Your task to perform on an android device: show emergency info Image 0: 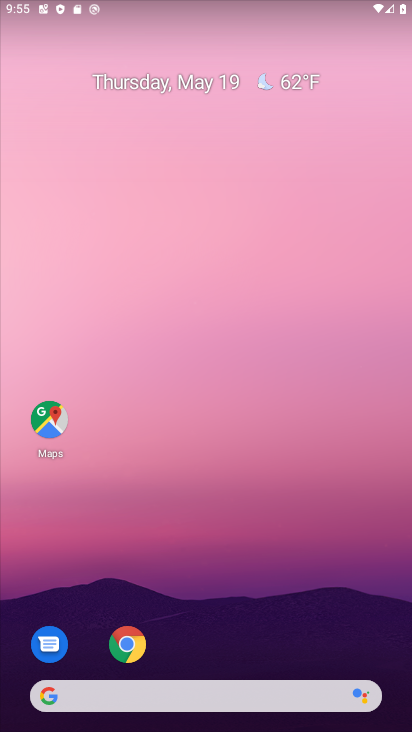
Step 0: press back button
Your task to perform on an android device: show emergency info Image 1: 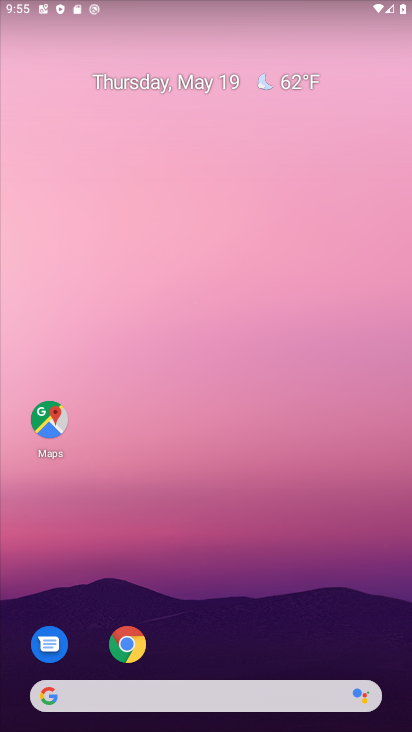
Step 1: drag from (260, 680) to (150, 86)
Your task to perform on an android device: show emergency info Image 2: 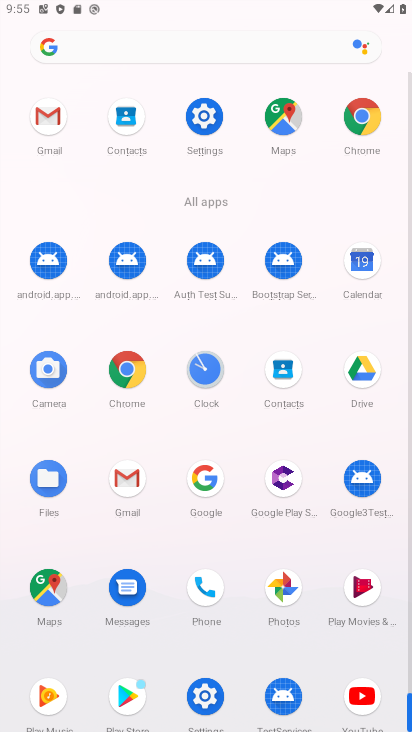
Step 2: click (201, 124)
Your task to perform on an android device: show emergency info Image 3: 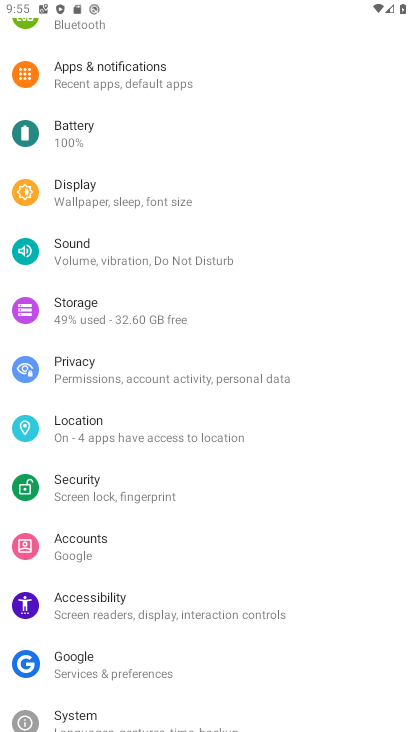
Step 3: drag from (191, 583) to (204, 227)
Your task to perform on an android device: show emergency info Image 4: 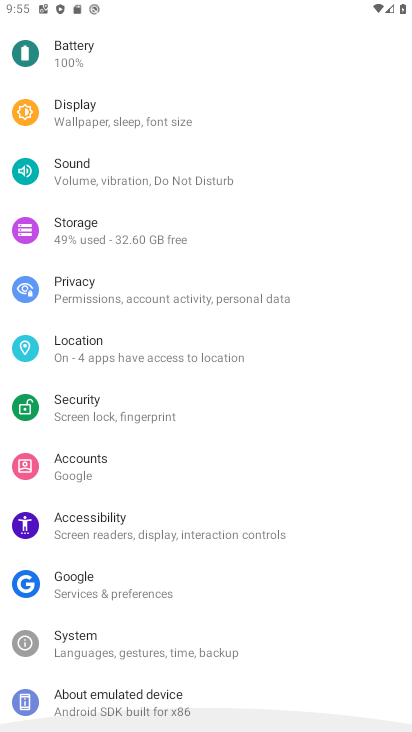
Step 4: drag from (169, 279) to (141, 44)
Your task to perform on an android device: show emergency info Image 5: 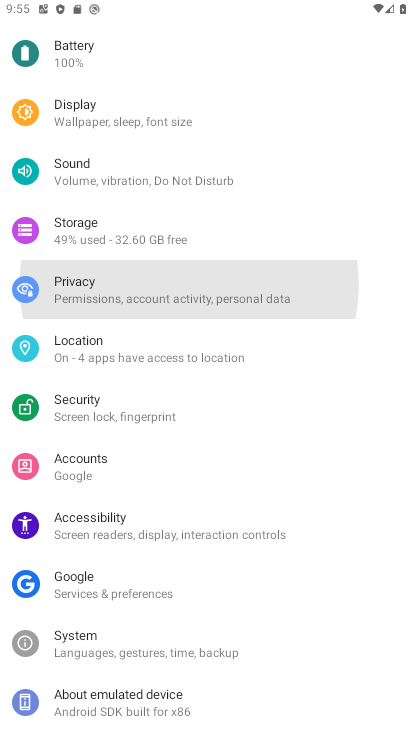
Step 5: drag from (116, 463) to (140, 68)
Your task to perform on an android device: show emergency info Image 6: 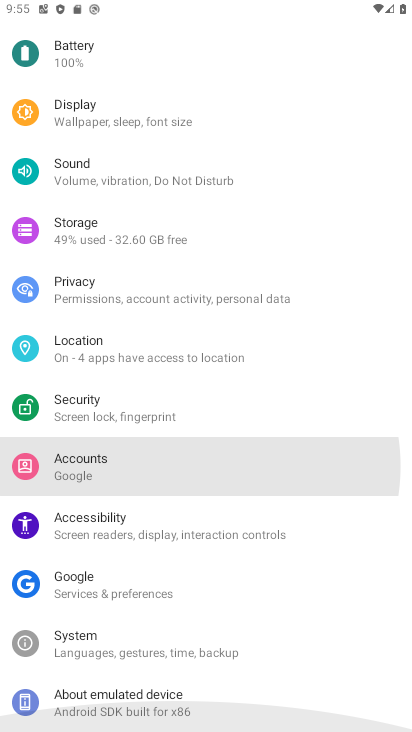
Step 6: click (156, 93)
Your task to perform on an android device: show emergency info Image 7: 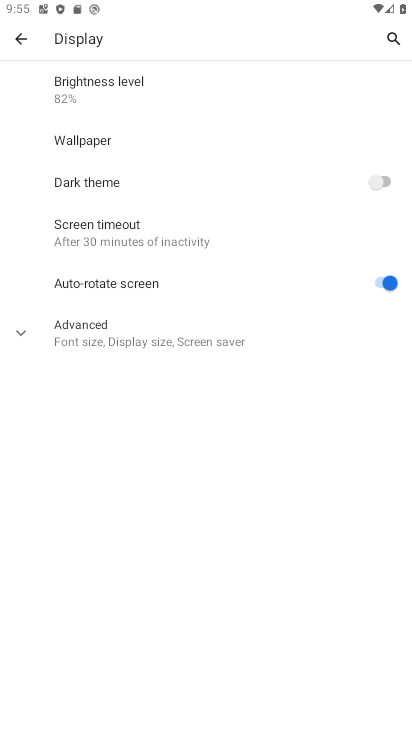
Step 7: click (94, 704)
Your task to perform on an android device: show emergency info Image 8: 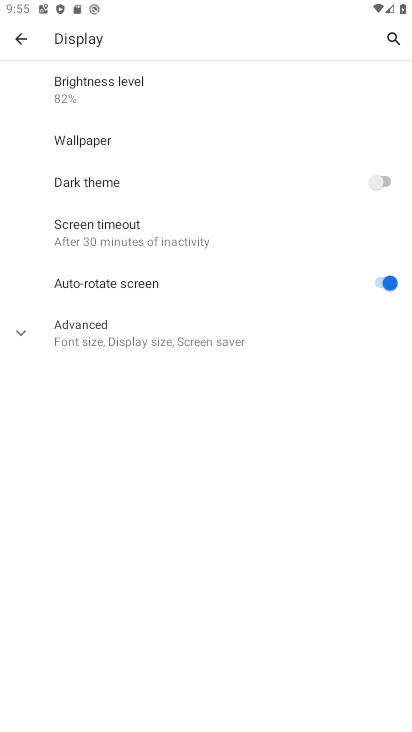
Step 8: click (16, 44)
Your task to perform on an android device: show emergency info Image 9: 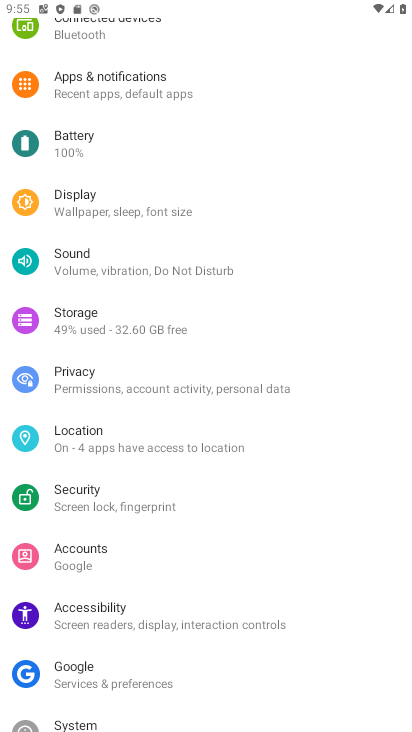
Step 9: drag from (135, 628) to (164, 300)
Your task to perform on an android device: show emergency info Image 10: 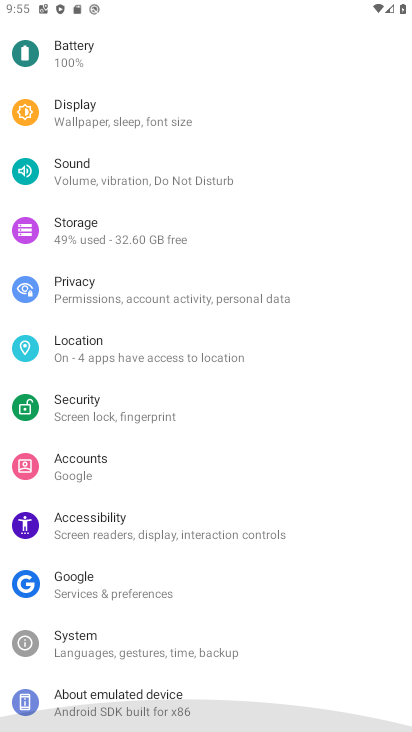
Step 10: drag from (184, 272) to (184, 123)
Your task to perform on an android device: show emergency info Image 11: 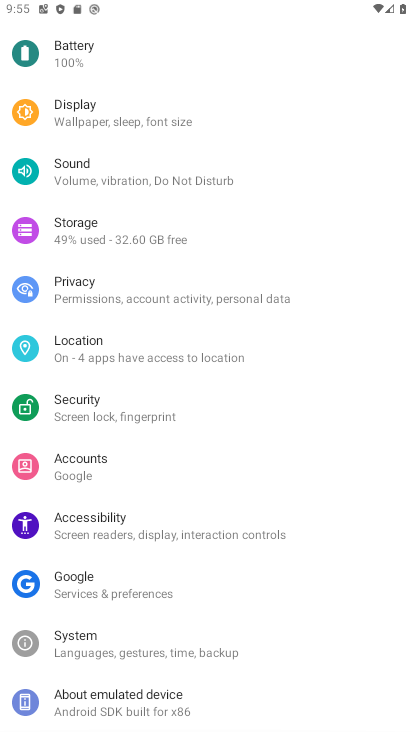
Step 11: drag from (220, 377) to (234, 236)
Your task to perform on an android device: show emergency info Image 12: 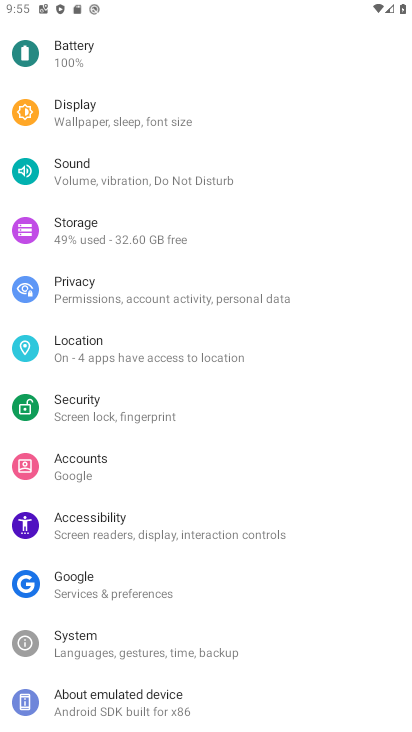
Step 12: click (96, 702)
Your task to perform on an android device: show emergency info Image 13: 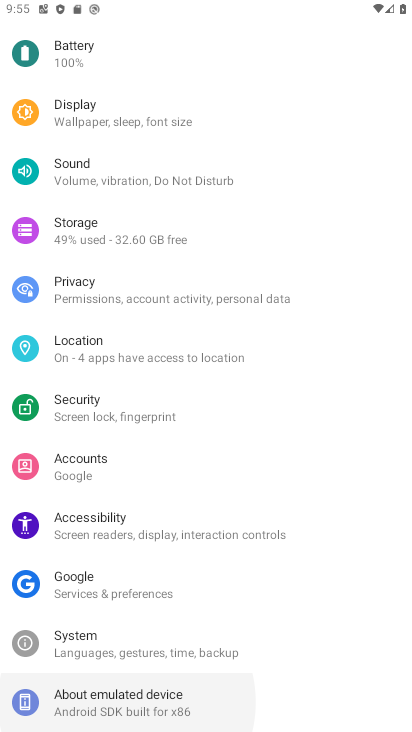
Step 13: click (96, 702)
Your task to perform on an android device: show emergency info Image 14: 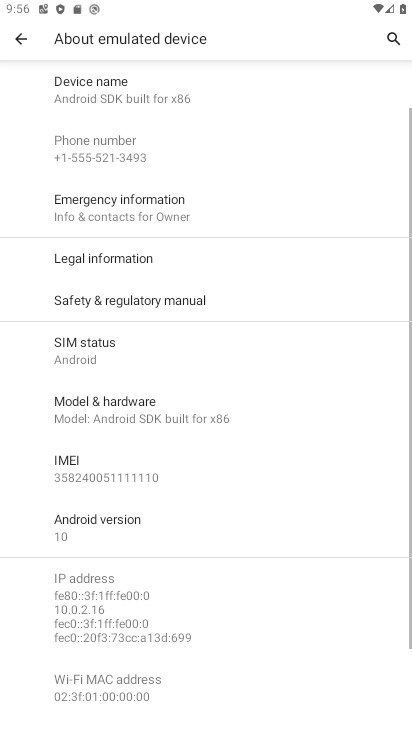
Step 14: click (99, 207)
Your task to perform on an android device: show emergency info Image 15: 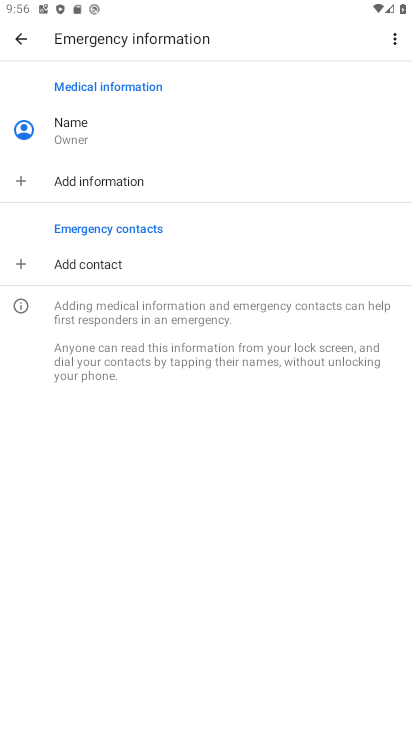
Step 15: task complete